Your task to perform on an android device: toggle priority inbox in the gmail app Image 0: 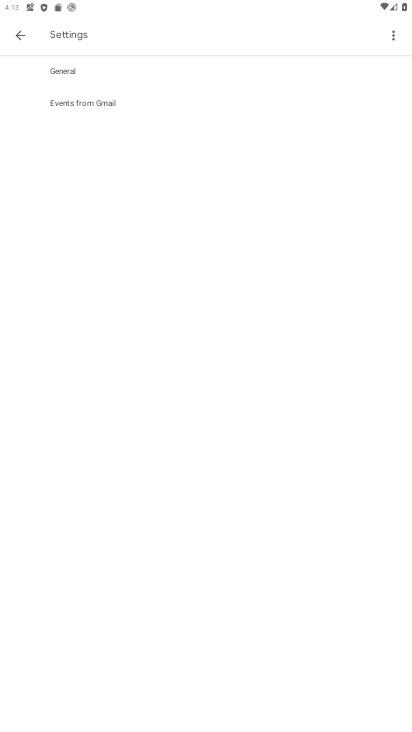
Step 0: press home button
Your task to perform on an android device: toggle priority inbox in the gmail app Image 1: 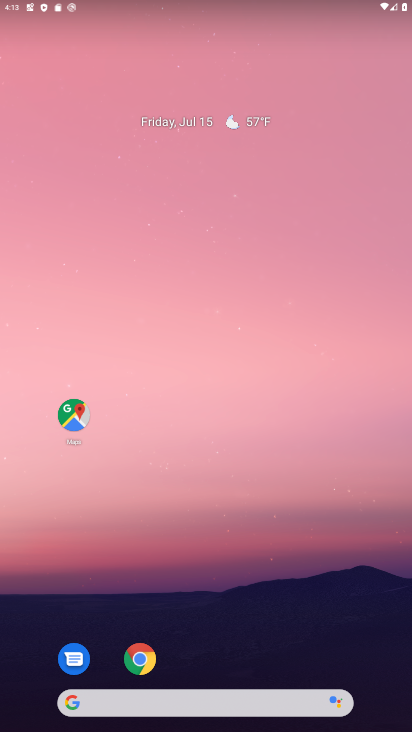
Step 1: drag from (301, 612) to (175, 97)
Your task to perform on an android device: toggle priority inbox in the gmail app Image 2: 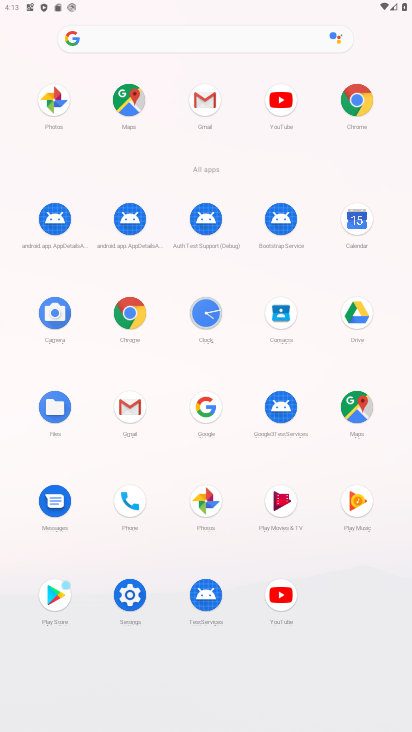
Step 2: click (215, 105)
Your task to perform on an android device: toggle priority inbox in the gmail app Image 3: 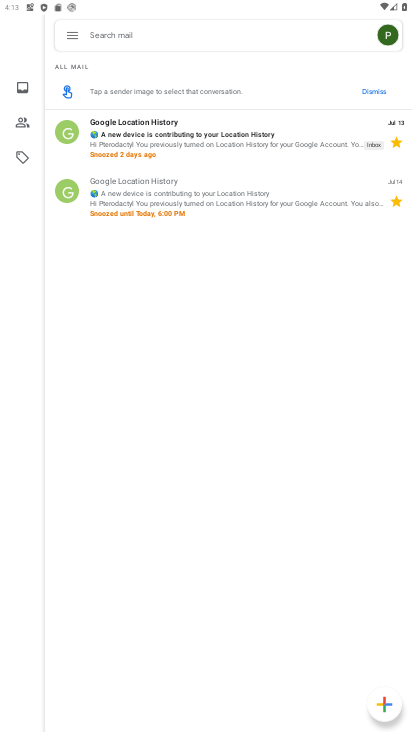
Step 3: click (61, 33)
Your task to perform on an android device: toggle priority inbox in the gmail app Image 4: 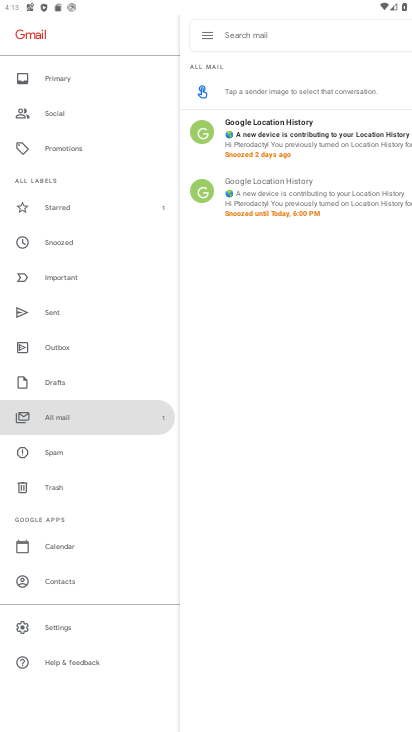
Step 4: click (98, 633)
Your task to perform on an android device: toggle priority inbox in the gmail app Image 5: 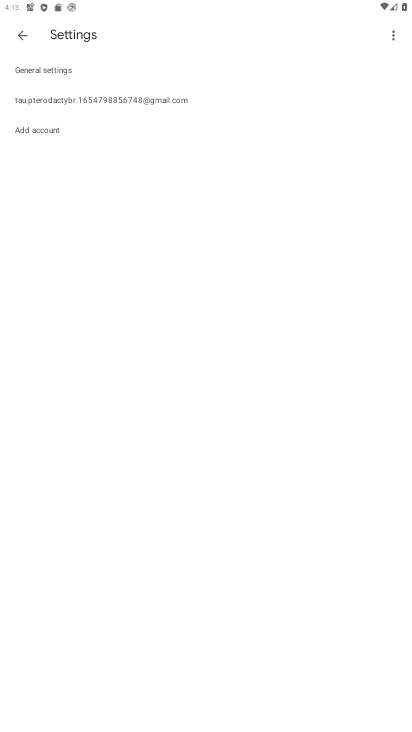
Step 5: click (246, 110)
Your task to perform on an android device: toggle priority inbox in the gmail app Image 6: 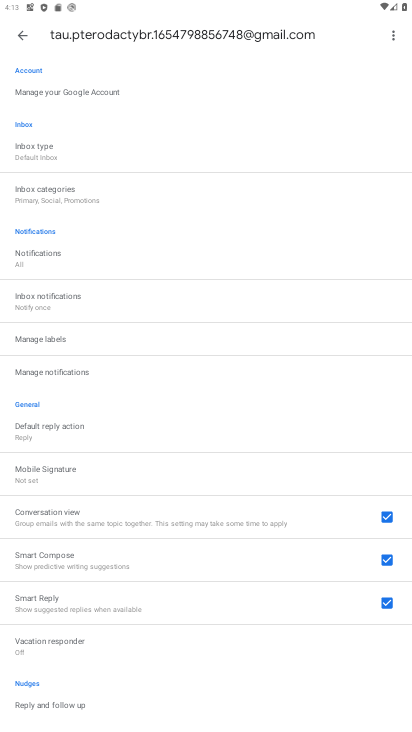
Step 6: click (94, 151)
Your task to perform on an android device: toggle priority inbox in the gmail app Image 7: 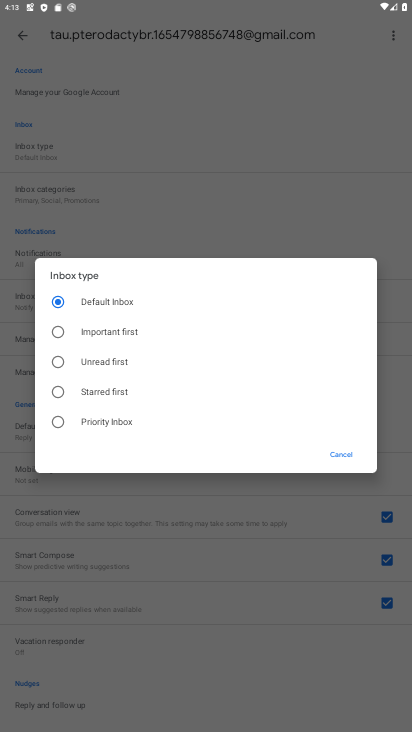
Step 7: click (125, 424)
Your task to perform on an android device: toggle priority inbox in the gmail app Image 8: 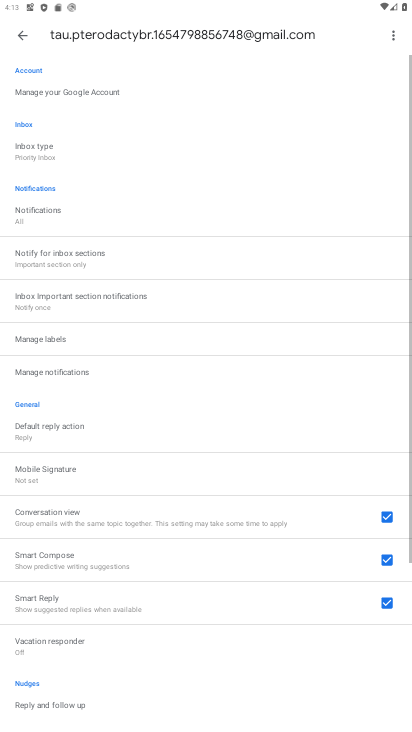
Step 8: task complete